Your task to perform on an android device: Turn off the flashlight Image 0: 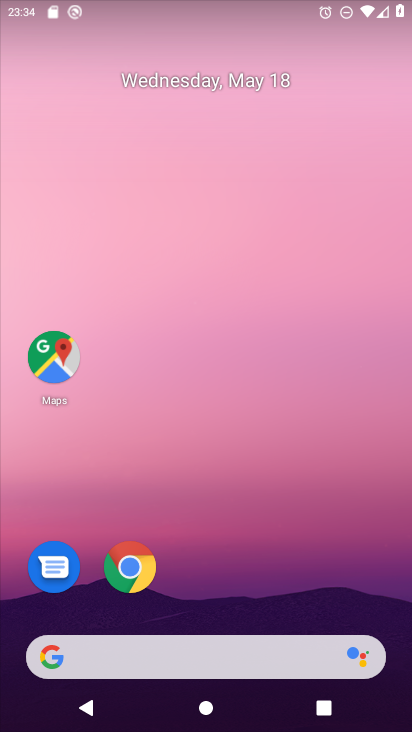
Step 0: drag from (265, 667) to (296, 75)
Your task to perform on an android device: Turn off the flashlight Image 1: 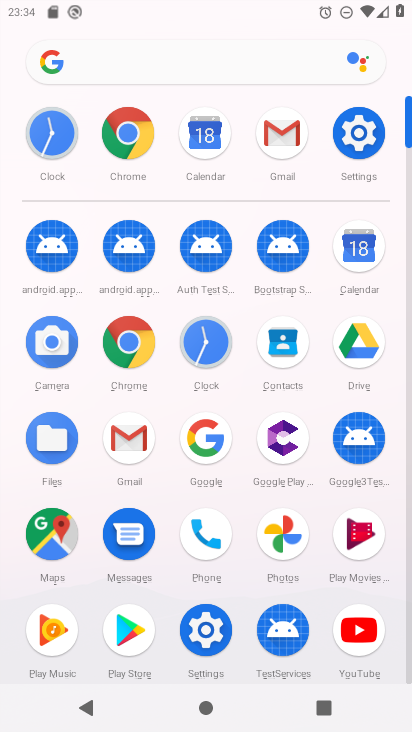
Step 1: click (352, 146)
Your task to perform on an android device: Turn off the flashlight Image 2: 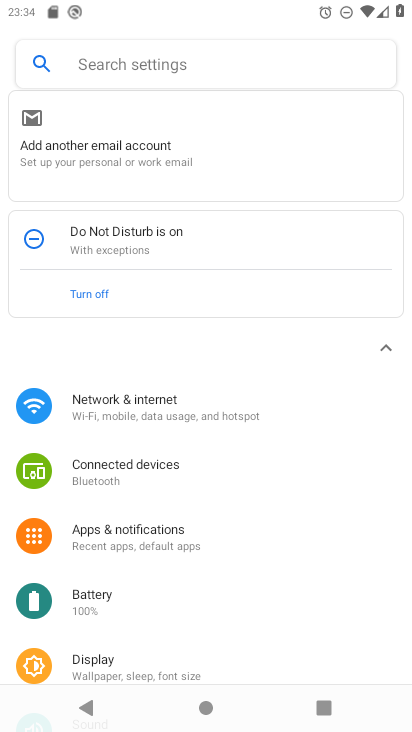
Step 2: click (171, 54)
Your task to perform on an android device: Turn off the flashlight Image 3: 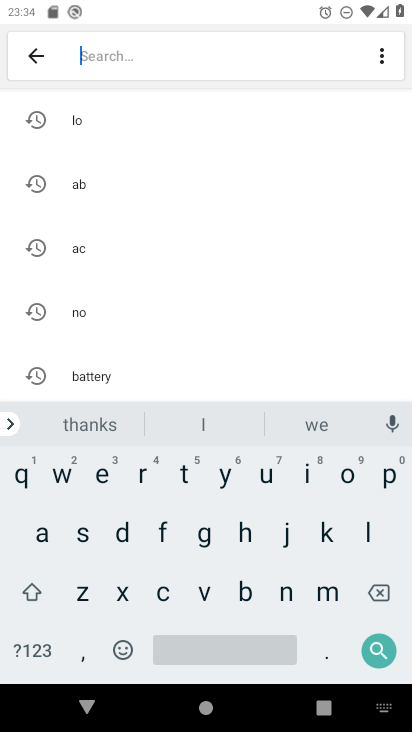
Step 3: click (160, 543)
Your task to perform on an android device: Turn off the flashlight Image 4: 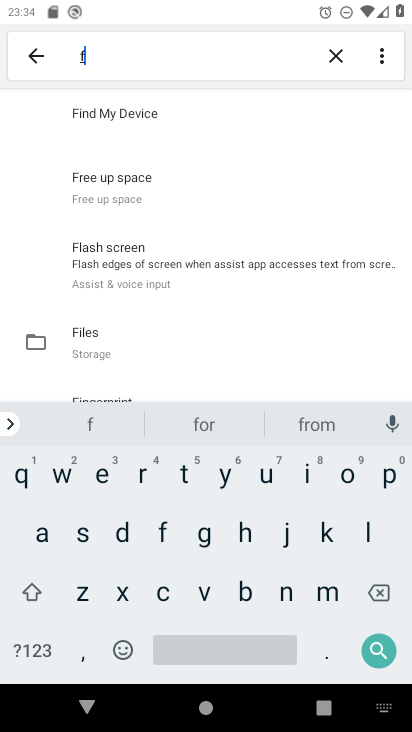
Step 4: click (366, 528)
Your task to perform on an android device: Turn off the flashlight Image 5: 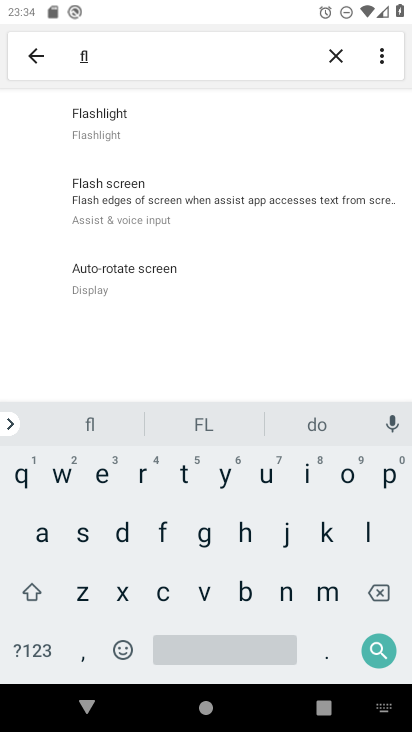
Step 5: click (150, 135)
Your task to perform on an android device: Turn off the flashlight Image 6: 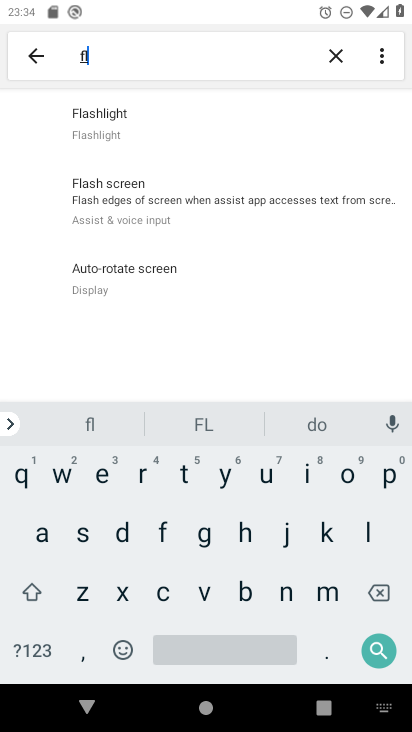
Step 6: click (150, 135)
Your task to perform on an android device: Turn off the flashlight Image 7: 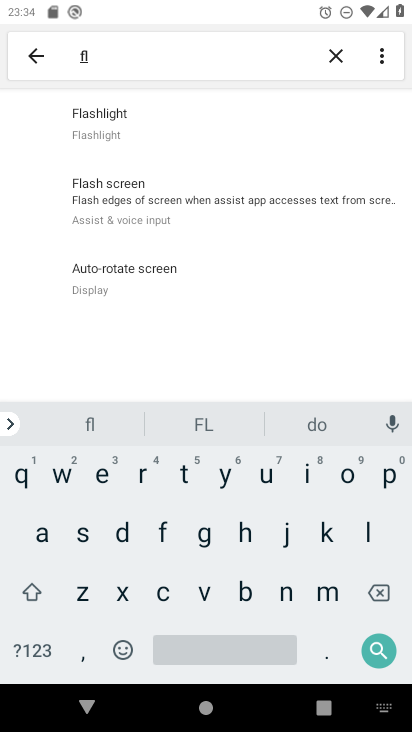
Step 7: task complete